Your task to perform on an android device: toggle notification dots Image 0: 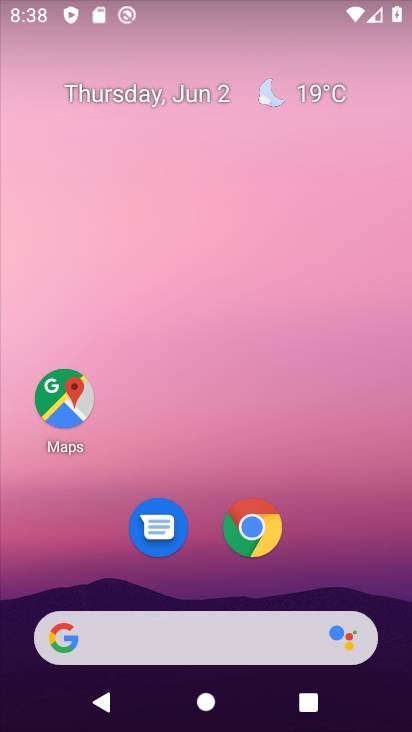
Step 0: drag from (381, 569) to (239, 167)
Your task to perform on an android device: toggle notification dots Image 1: 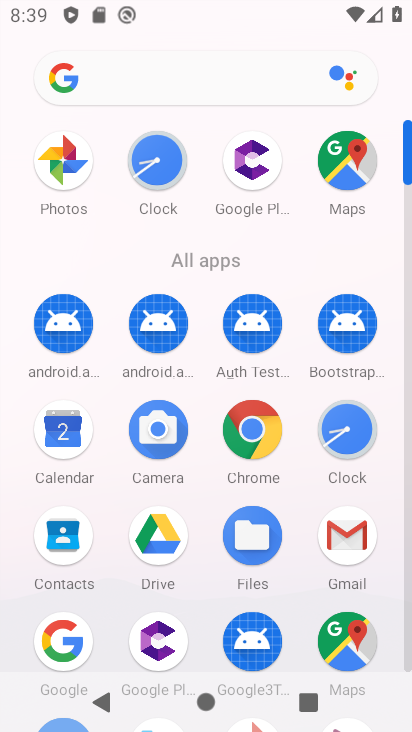
Step 1: click (406, 662)
Your task to perform on an android device: toggle notification dots Image 2: 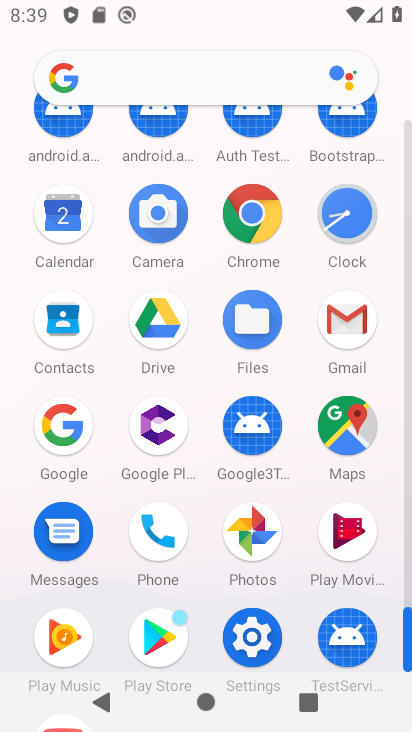
Step 2: click (256, 654)
Your task to perform on an android device: toggle notification dots Image 3: 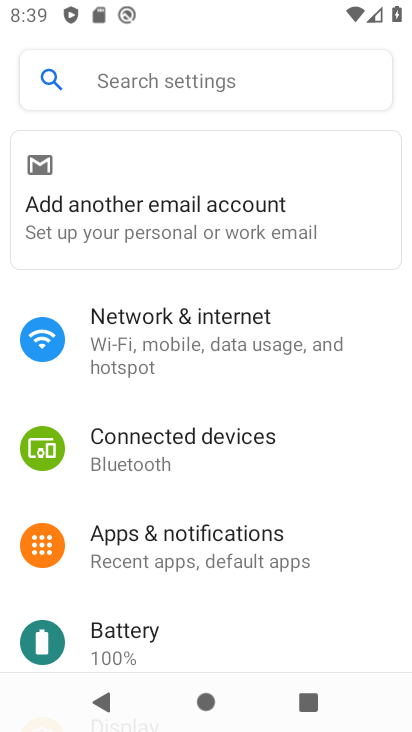
Step 3: click (285, 542)
Your task to perform on an android device: toggle notification dots Image 4: 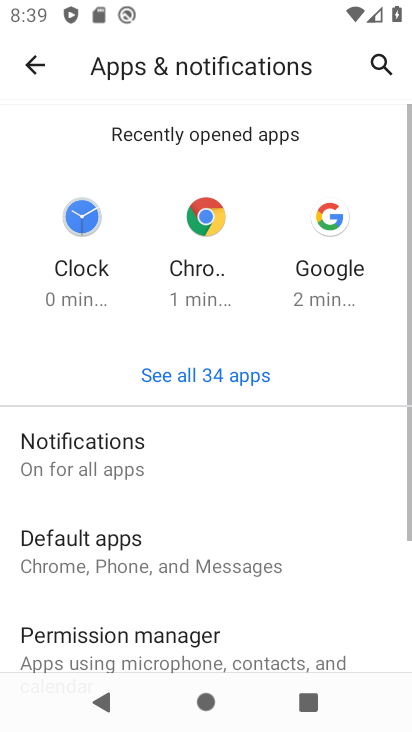
Step 4: click (206, 464)
Your task to perform on an android device: toggle notification dots Image 5: 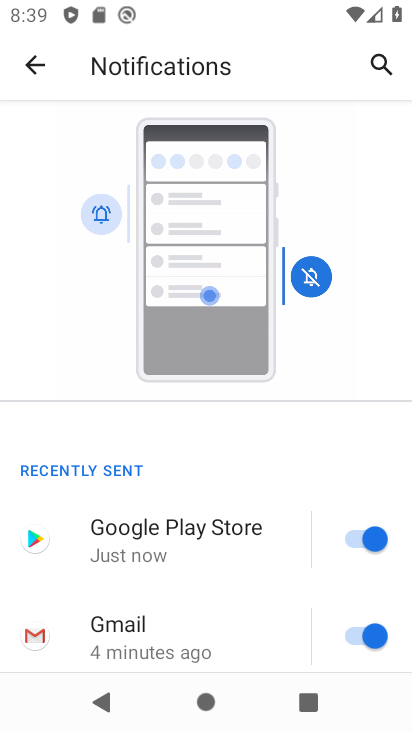
Step 5: drag from (258, 633) to (213, 291)
Your task to perform on an android device: toggle notification dots Image 6: 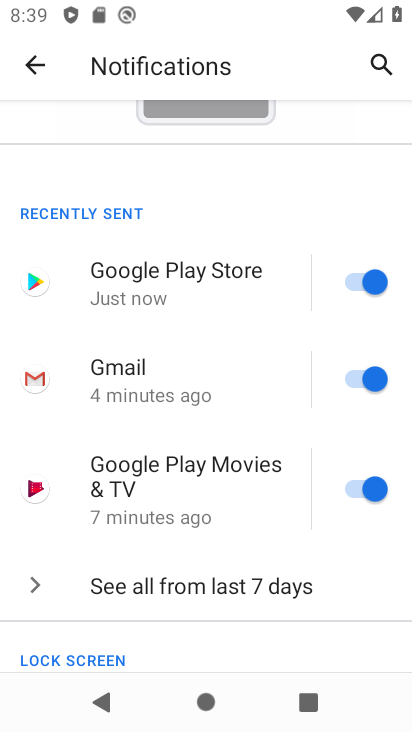
Step 6: drag from (278, 572) to (177, 198)
Your task to perform on an android device: toggle notification dots Image 7: 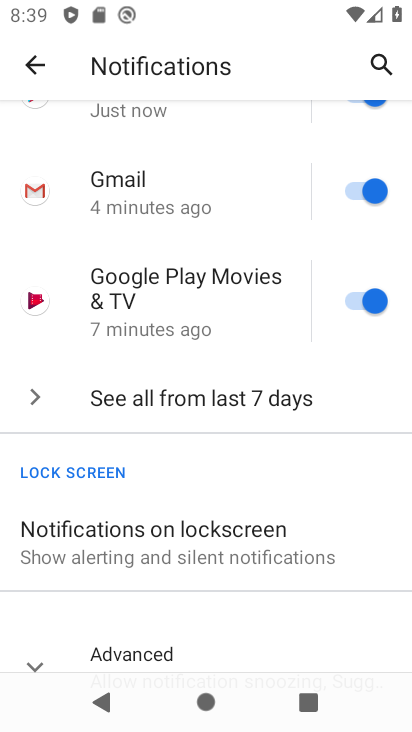
Step 7: drag from (246, 523) to (222, 195)
Your task to perform on an android device: toggle notification dots Image 8: 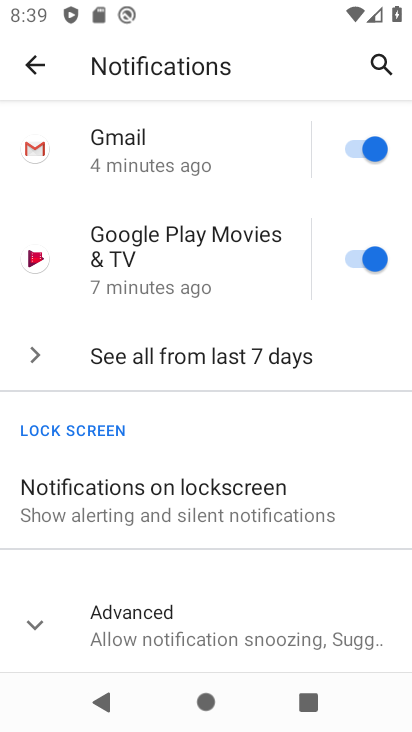
Step 8: click (181, 593)
Your task to perform on an android device: toggle notification dots Image 9: 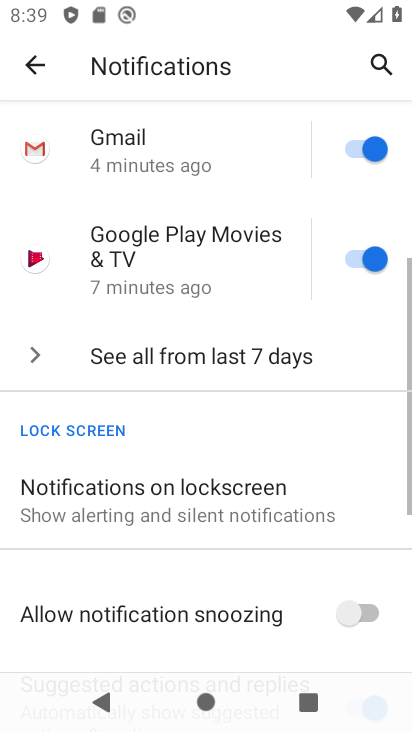
Step 9: drag from (181, 593) to (175, 233)
Your task to perform on an android device: toggle notification dots Image 10: 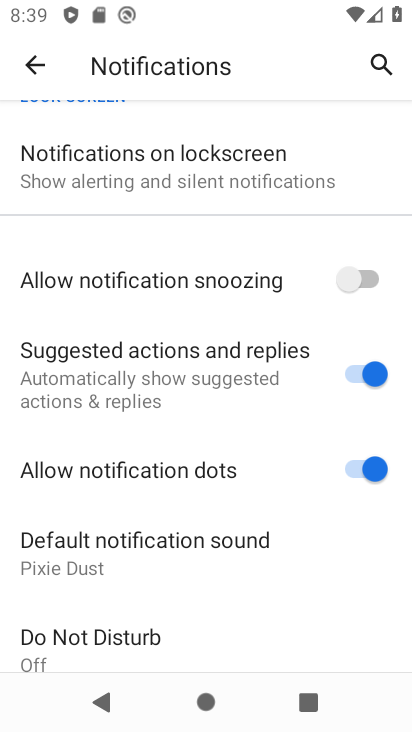
Step 10: click (372, 473)
Your task to perform on an android device: toggle notification dots Image 11: 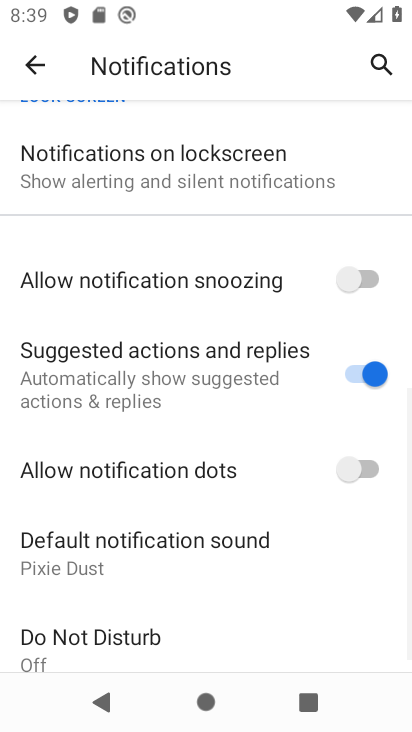
Step 11: task complete